Your task to perform on an android device: Open Amazon Image 0: 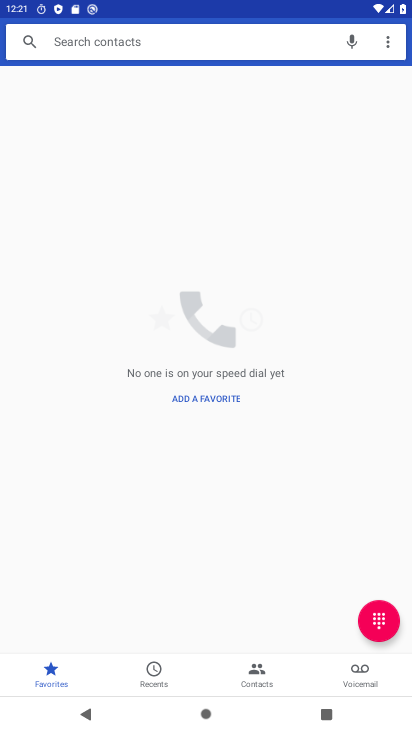
Step 0: press home button
Your task to perform on an android device: Open Amazon Image 1: 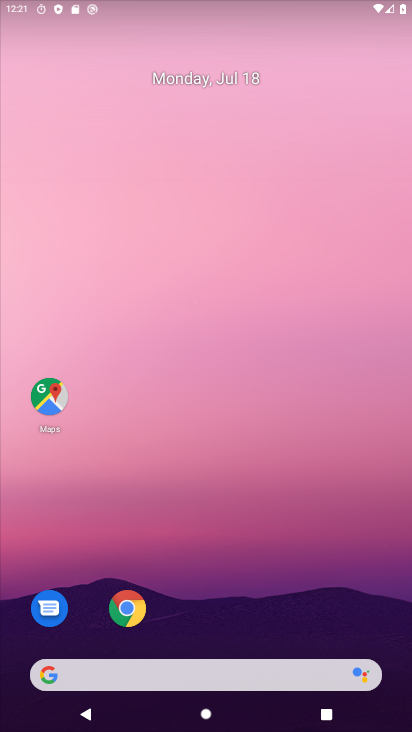
Step 1: drag from (289, 481) to (263, 56)
Your task to perform on an android device: Open Amazon Image 2: 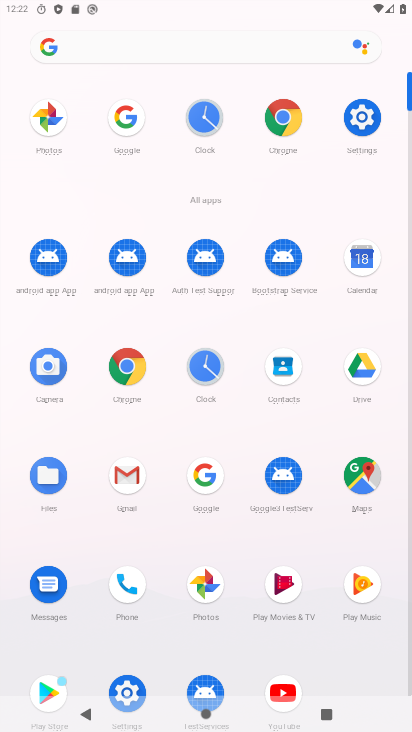
Step 2: click (268, 123)
Your task to perform on an android device: Open Amazon Image 3: 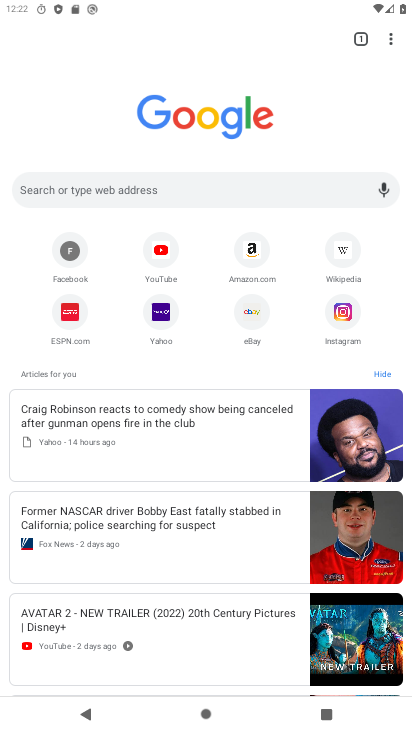
Step 3: click (255, 254)
Your task to perform on an android device: Open Amazon Image 4: 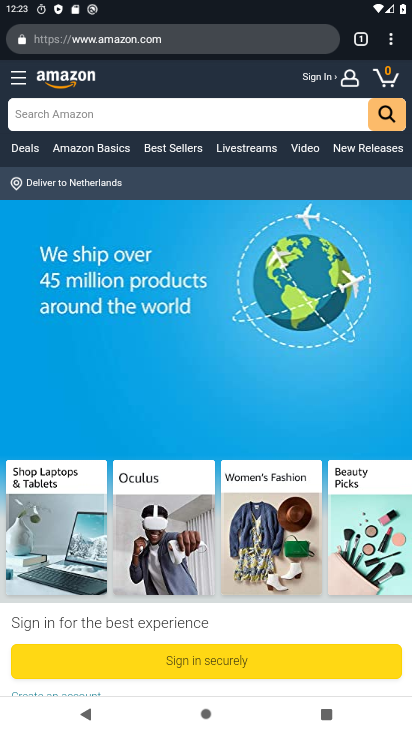
Step 4: task complete